Your task to perform on an android device: visit the assistant section in the google photos Image 0: 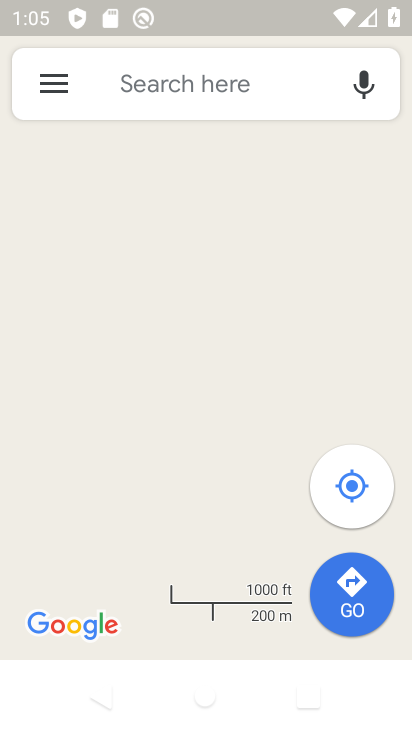
Step 0: press back button
Your task to perform on an android device: visit the assistant section in the google photos Image 1: 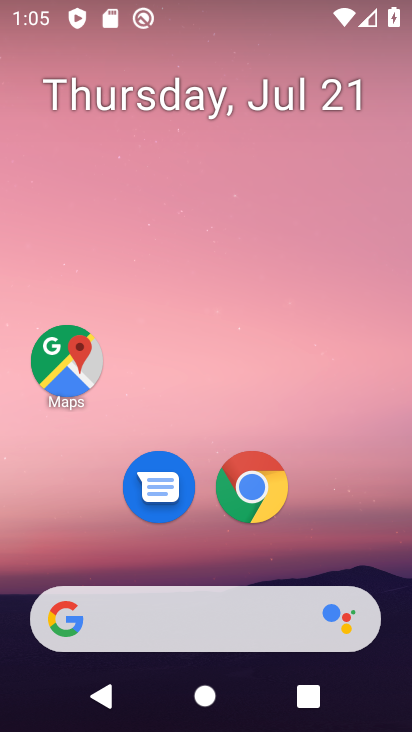
Step 1: drag from (150, 525) to (259, 5)
Your task to perform on an android device: visit the assistant section in the google photos Image 2: 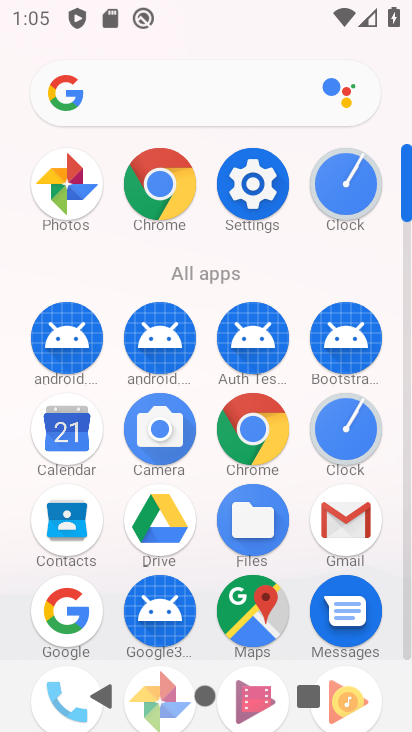
Step 2: drag from (173, 625) to (251, 217)
Your task to perform on an android device: visit the assistant section in the google photos Image 3: 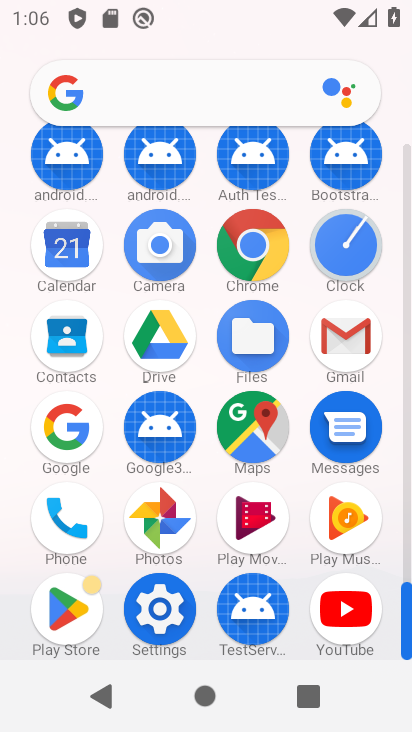
Step 3: click (158, 511)
Your task to perform on an android device: visit the assistant section in the google photos Image 4: 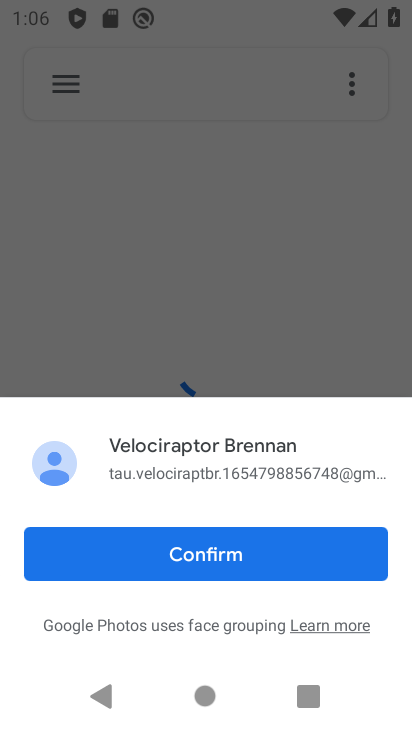
Step 4: click (258, 614)
Your task to perform on an android device: visit the assistant section in the google photos Image 5: 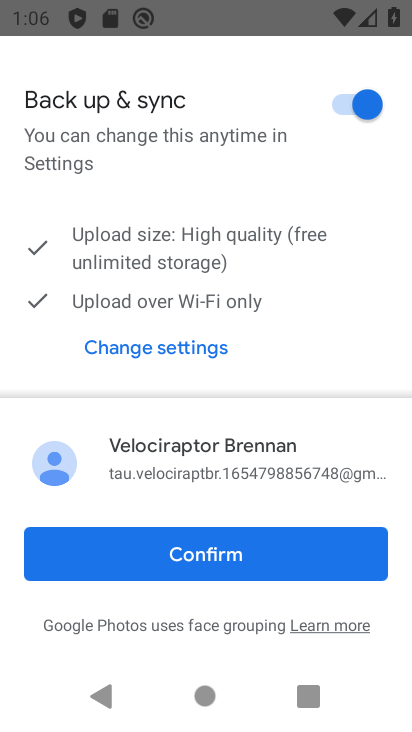
Step 5: click (253, 555)
Your task to perform on an android device: visit the assistant section in the google photos Image 6: 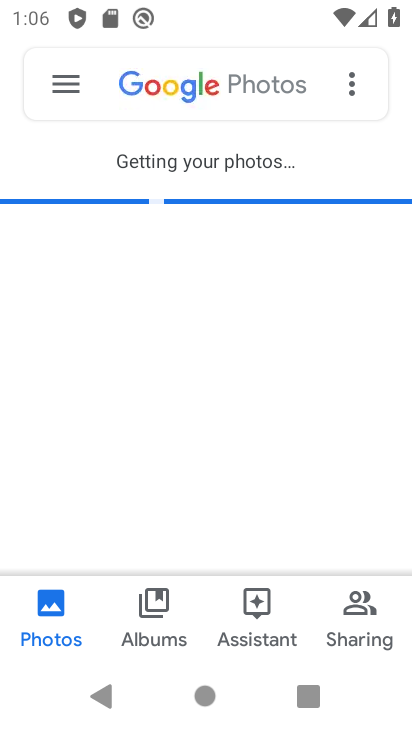
Step 6: click (257, 614)
Your task to perform on an android device: visit the assistant section in the google photos Image 7: 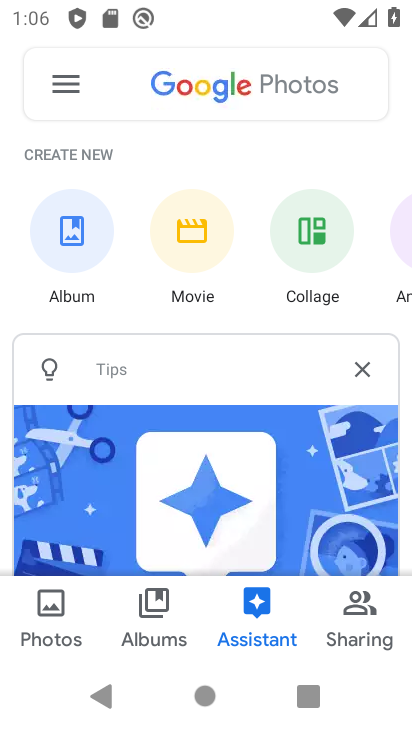
Step 7: task complete